Your task to perform on an android device: Turn on the flashlight Image 0: 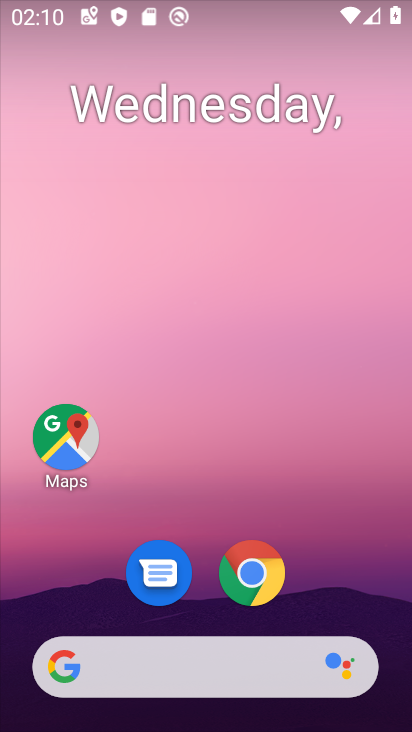
Step 0: drag from (327, 413) to (376, 38)
Your task to perform on an android device: Turn on the flashlight Image 1: 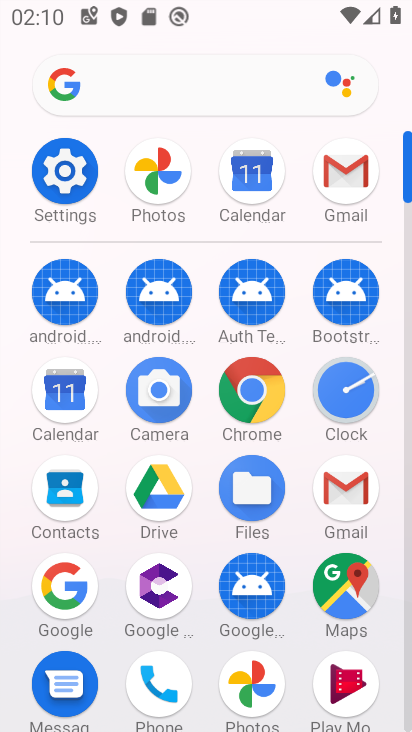
Step 1: click (67, 168)
Your task to perform on an android device: Turn on the flashlight Image 2: 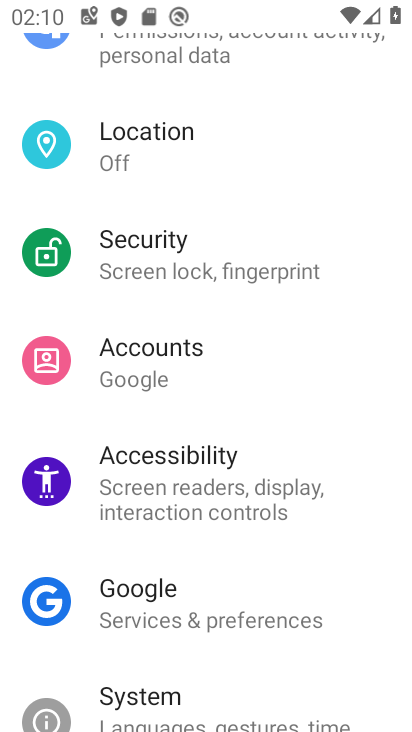
Step 2: drag from (161, 174) to (161, 383)
Your task to perform on an android device: Turn on the flashlight Image 3: 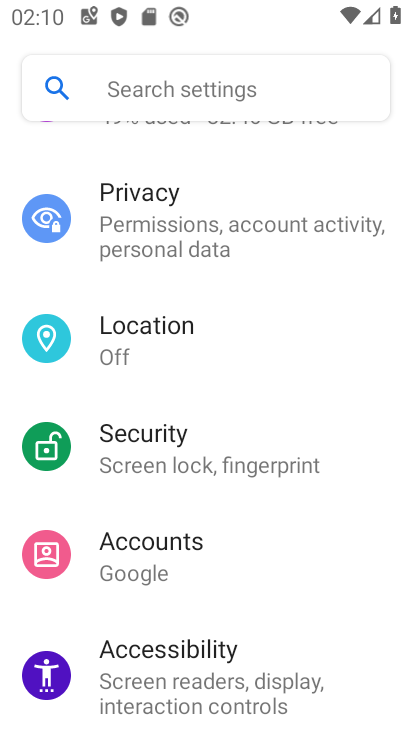
Step 3: drag from (232, 303) to (233, 532)
Your task to perform on an android device: Turn on the flashlight Image 4: 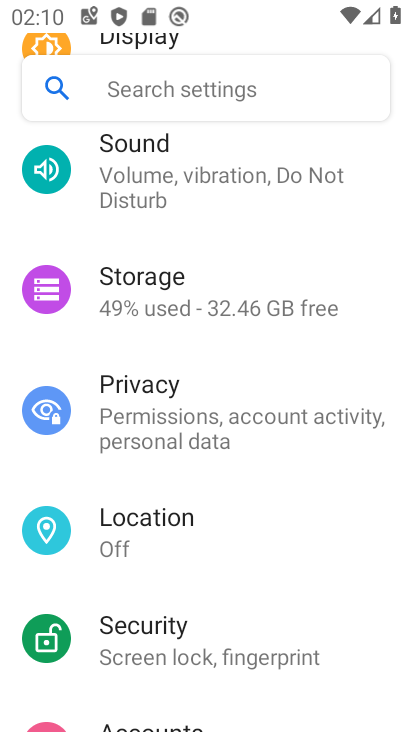
Step 4: drag from (235, 256) to (280, 497)
Your task to perform on an android device: Turn on the flashlight Image 5: 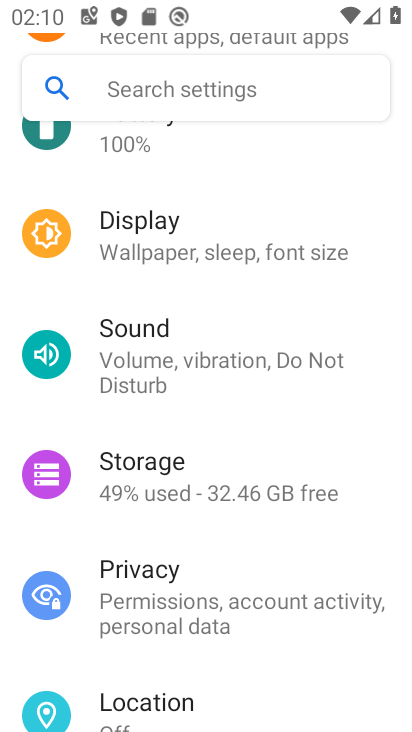
Step 5: click (215, 264)
Your task to perform on an android device: Turn on the flashlight Image 6: 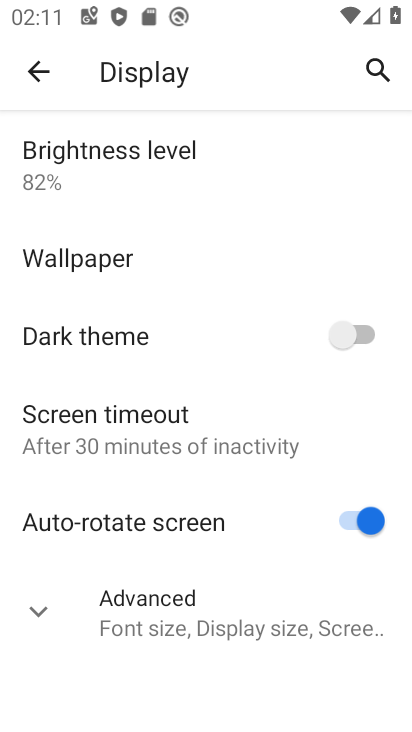
Step 6: task complete